Your task to perform on an android device: stop showing notifications on the lock screen Image 0: 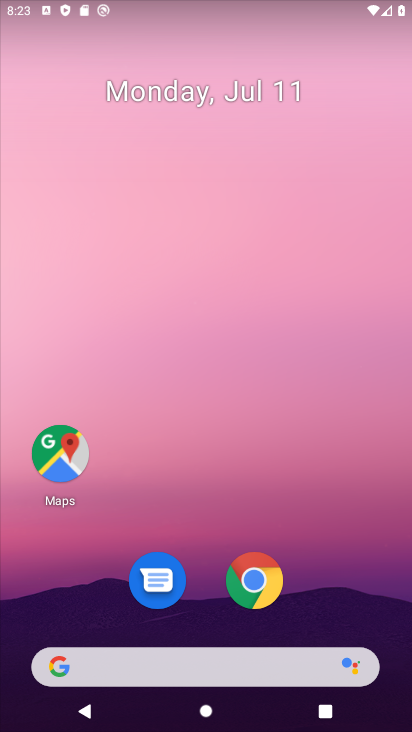
Step 0: drag from (378, 634) to (181, 144)
Your task to perform on an android device: stop showing notifications on the lock screen Image 1: 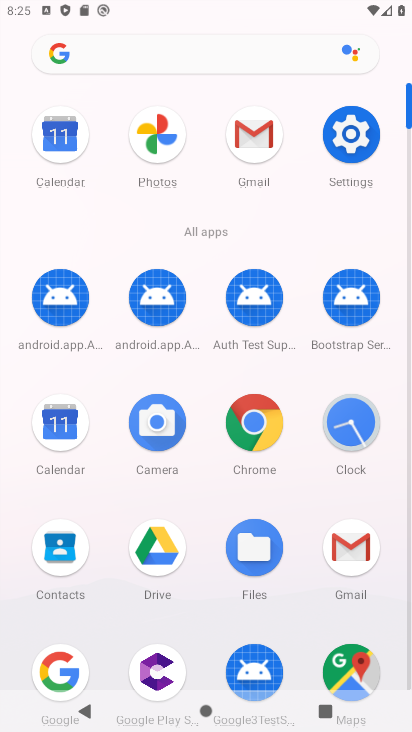
Step 1: click (365, 138)
Your task to perform on an android device: stop showing notifications on the lock screen Image 2: 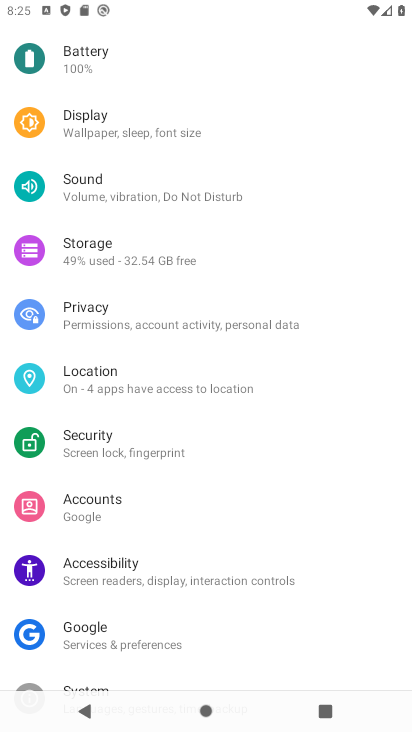
Step 2: drag from (190, 138) to (206, 531)
Your task to perform on an android device: stop showing notifications on the lock screen Image 3: 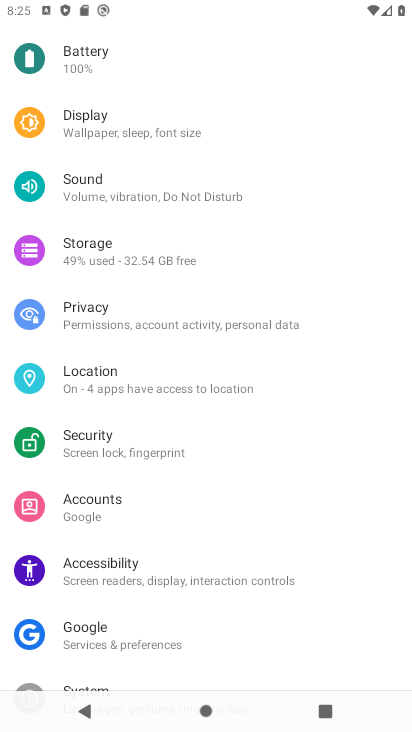
Step 3: drag from (103, 162) to (119, 542)
Your task to perform on an android device: stop showing notifications on the lock screen Image 4: 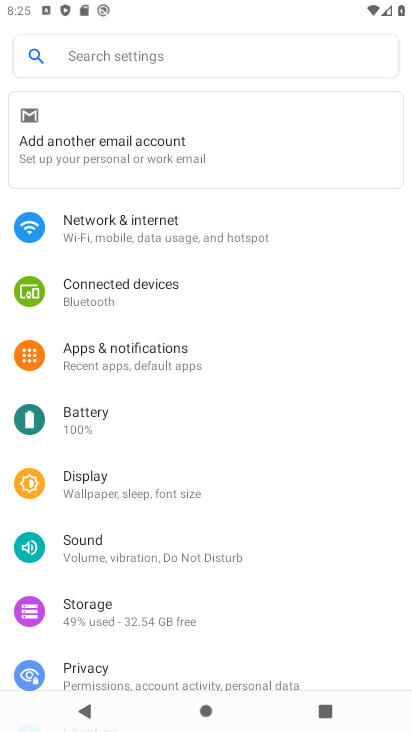
Step 4: click (145, 354)
Your task to perform on an android device: stop showing notifications on the lock screen Image 5: 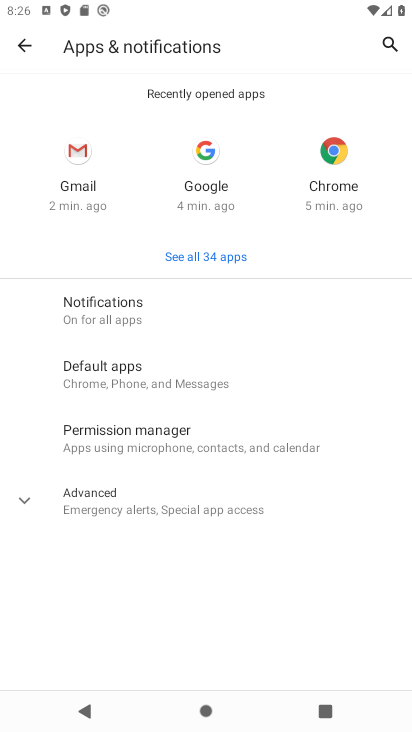
Step 5: click (157, 315)
Your task to perform on an android device: stop showing notifications on the lock screen Image 6: 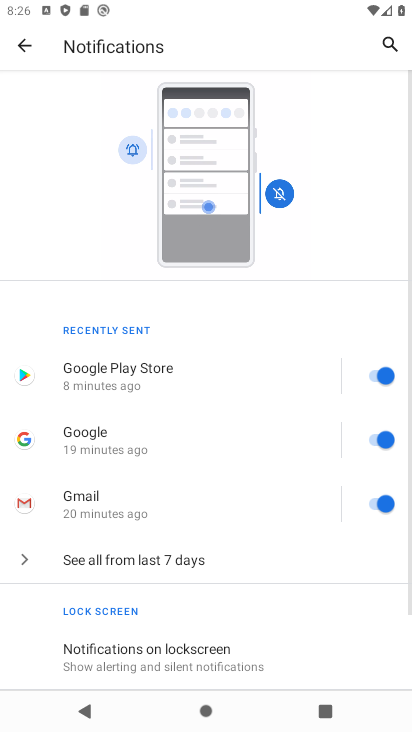
Step 6: click (182, 673)
Your task to perform on an android device: stop showing notifications on the lock screen Image 7: 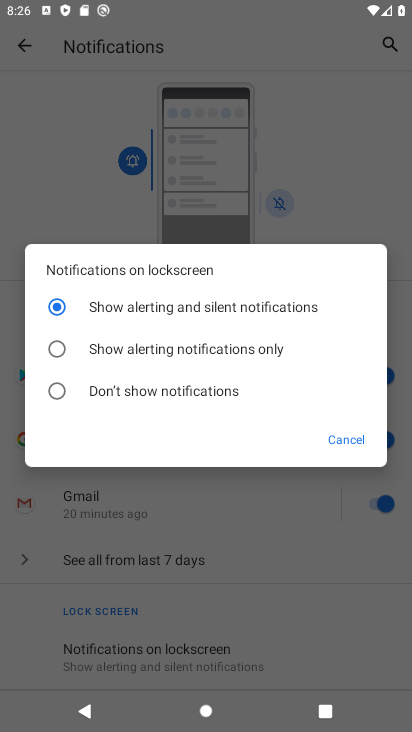
Step 7: click (63, 387)
Your task to perform on an android device: stop showing notifications on the lock screen Image 8: 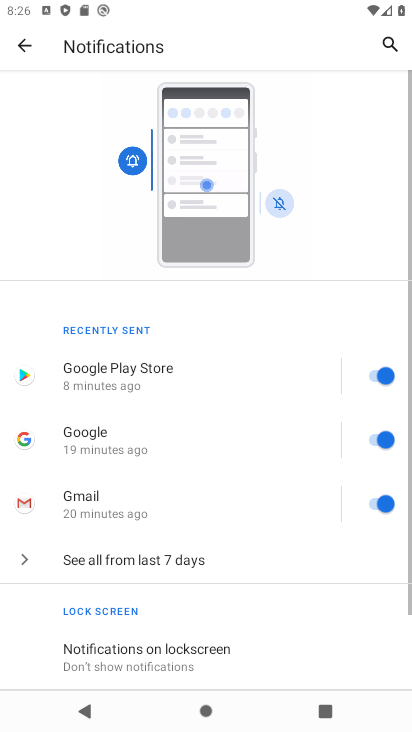
Step 8: task complete